Your task to perform on an android device: Open CNN.com Image 0: 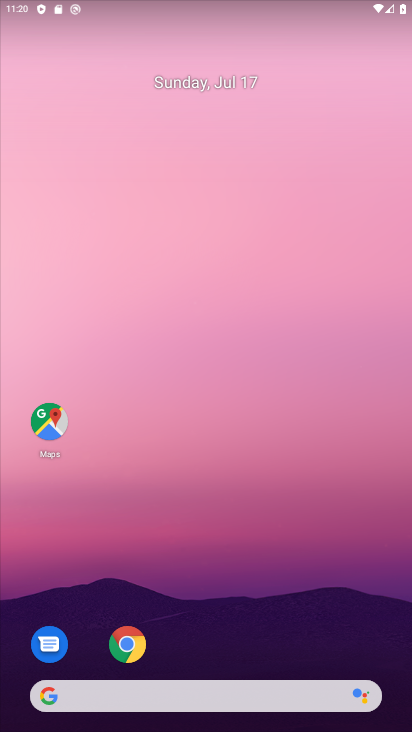
Step 0: click (123, 632)
Your task to perform on an android device: Open CNN.com Image 1: 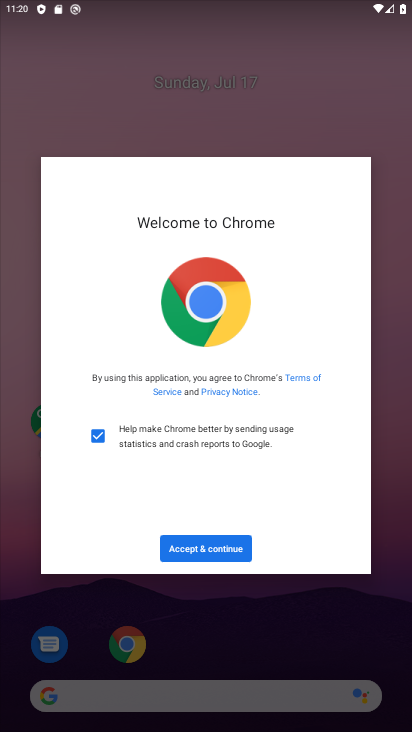
Step 1: click (244, 546)
Your task to perform on an android device: Open CNN.com Image 2: 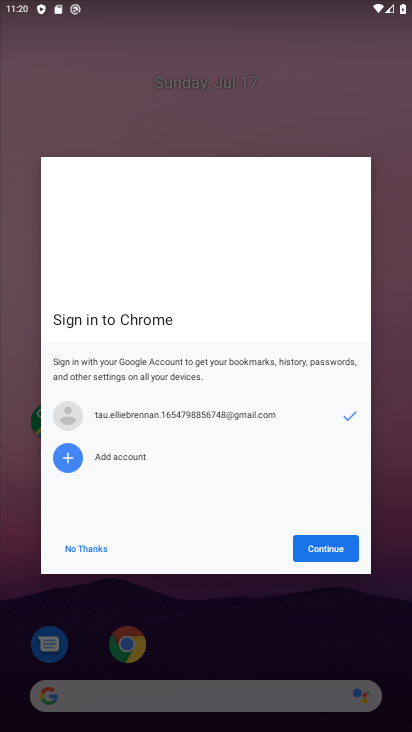
Step 2: click (345, 546)
Your task to perform on an android device: Open CNN.com Image 3: 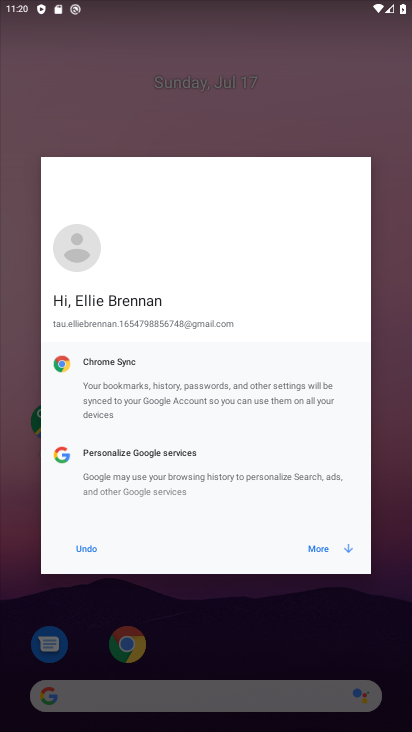
Step 3: click (311, 548)
Your task to perform on an android device: Open CNN.com Image 4: 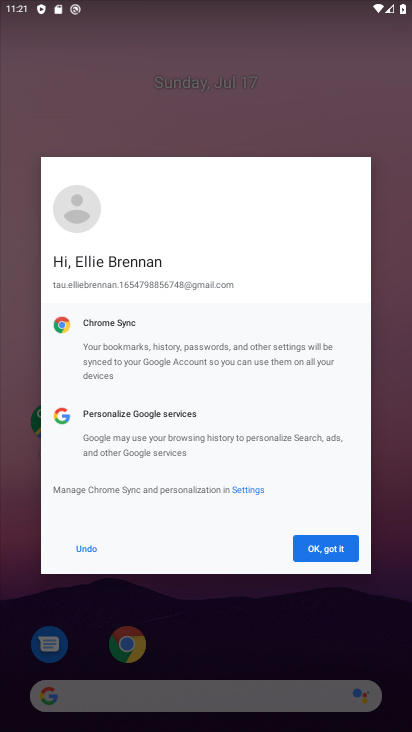
Step 4: click (311, 548)
Your task to perform on an android device: Open CNN.com Image 5: 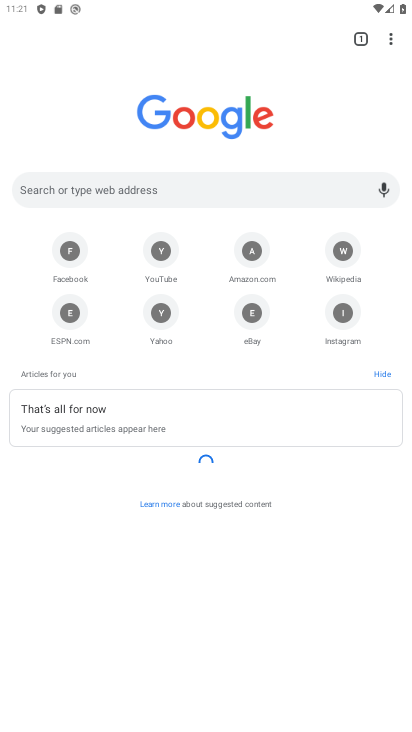
Step 5: click (219, 191)
Your task to perform on an android device: Open CNN.com Image 6: 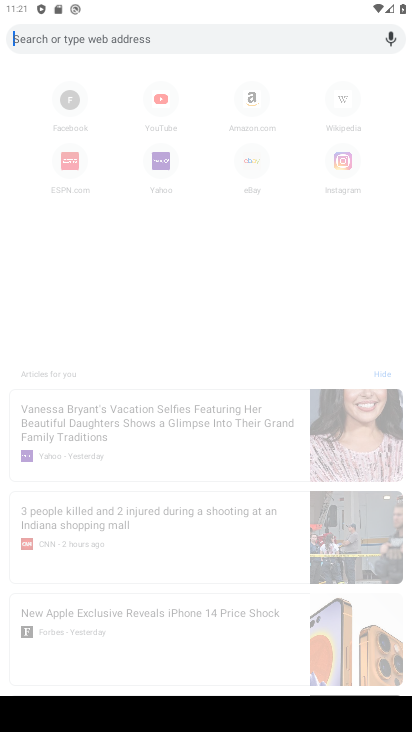
Step 6: type "CNN.com"
Your task to perform on an android device: Open CNN.com Image 7: 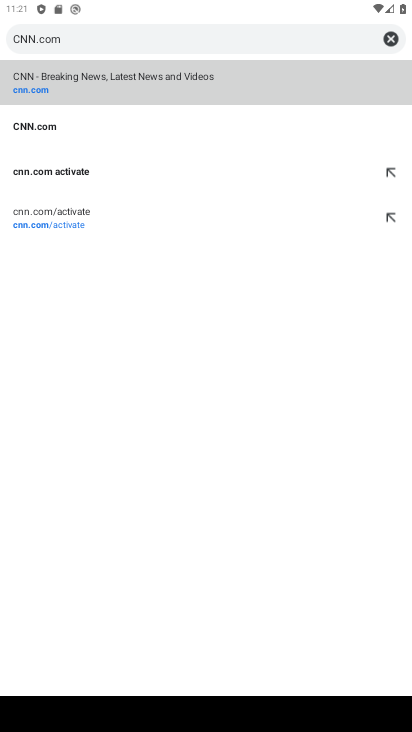
Step 7: click (29, 118)
Your task to perform on an android device: Open CNN.com Image 8: 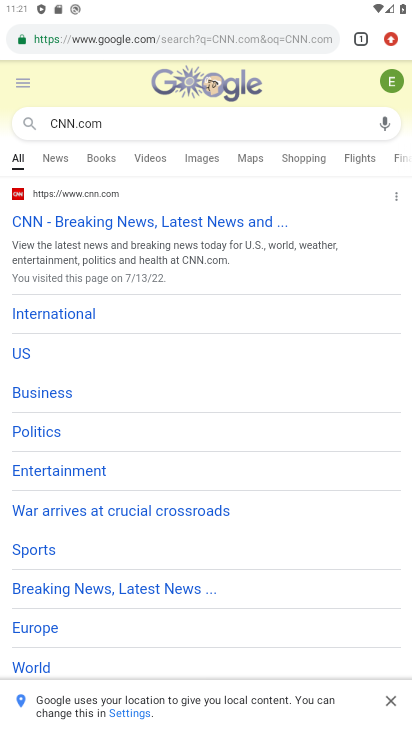
Step 8: task complete